Your task to perform on an android device: turn pop-ups on in chrome Image 0: 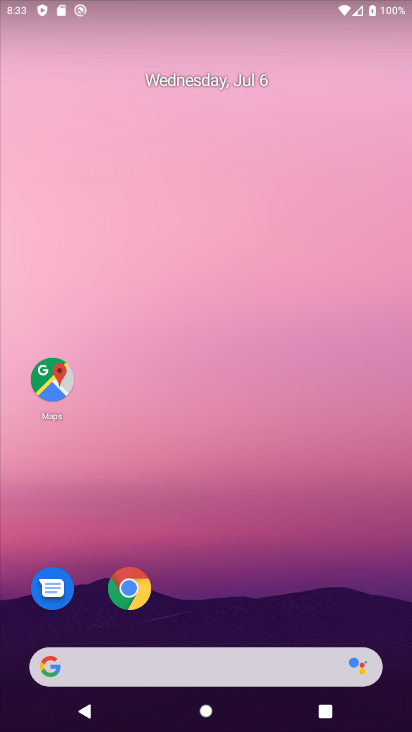
Step 0: drag from (284, 569) to (202, 80)
Your task to perform on an android device: turn pop-ups on in chrome Image 1: 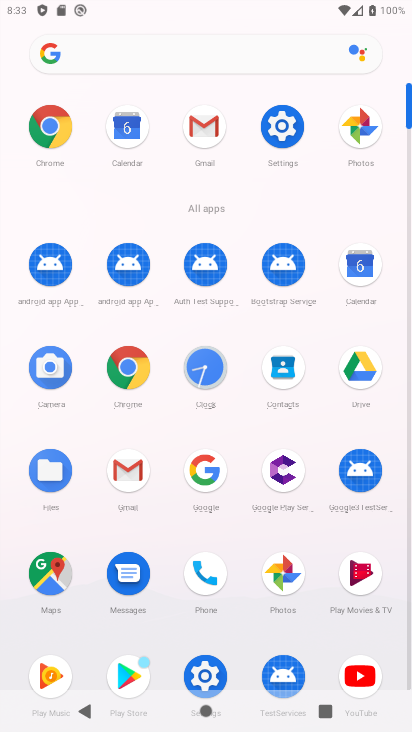
Step 1: click (49, 126)
Your task to perform on an android device: turn pop-ups on in chrome Image 2: 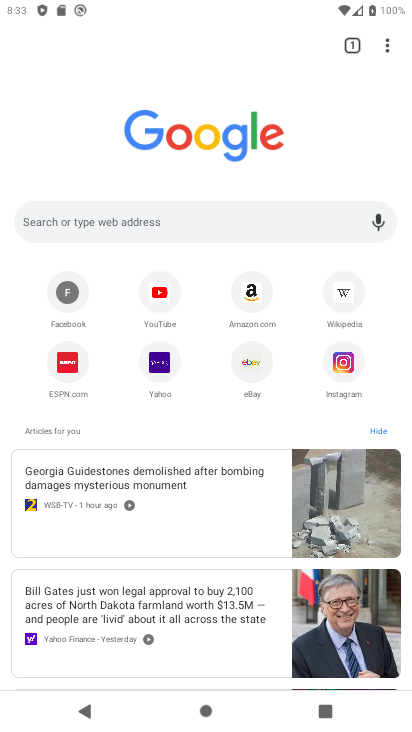
Step 2: click (383, 44)
Your task to perform on an android device: turn pop-ups on in chrome Image 3: 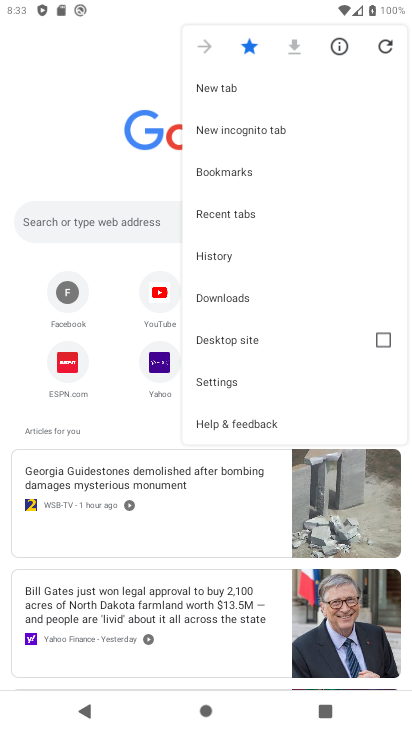
Step 3: click (230, 376)
Your task to perform on an android device: turn pop-ups on in chrome Image 4: 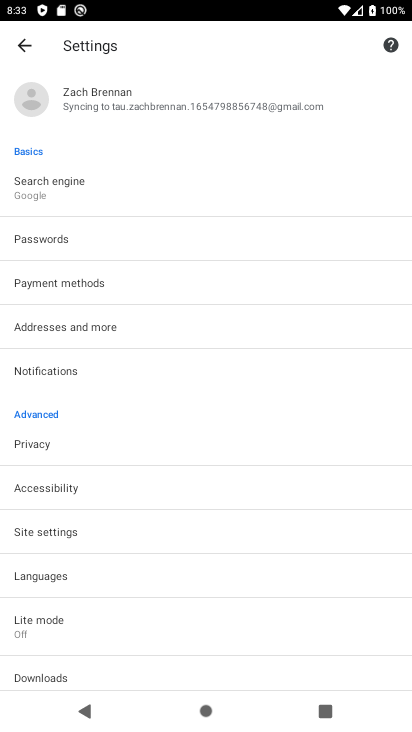
Step 4: click (48, 534)
Your task to perform on an android device: turn pop-ups on in chrome Image 5: 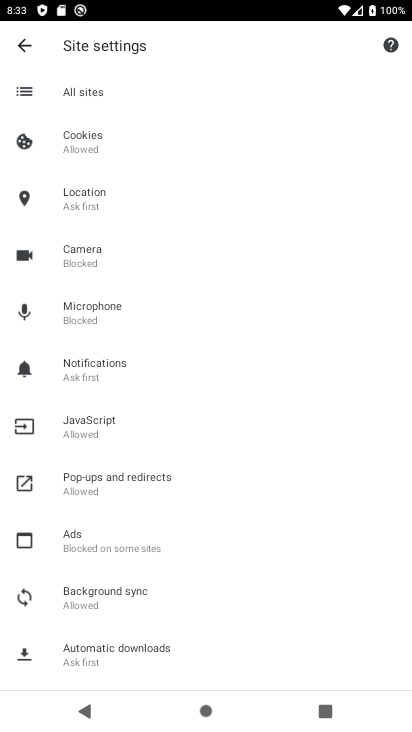
Step 5: click (100, 479)
Your task to perform on an android device: turn pop-ups on in chrome Image 6: 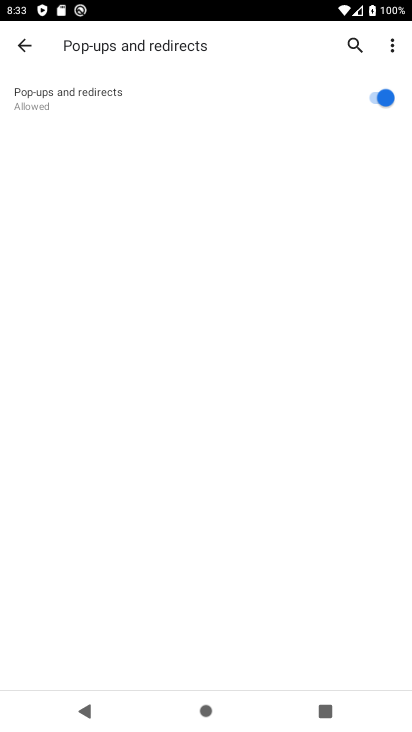
Step 6: task complete